Your task to perform on an android device: move a message to another label in the gmail app Image 0: 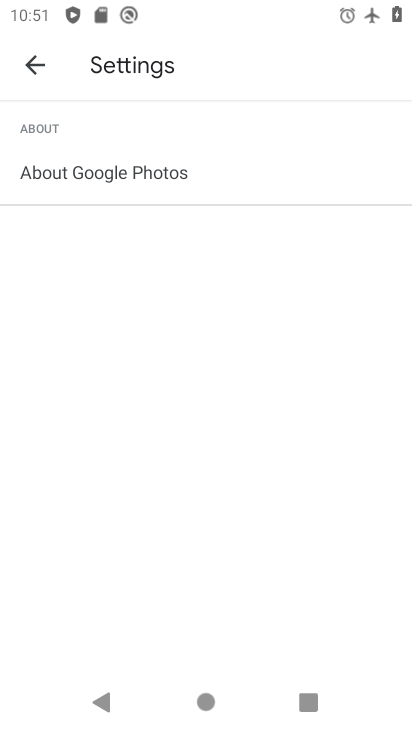
Step 0: press home button
Your task to perform on an android device: move a message to another label in the gmail app Image 1: 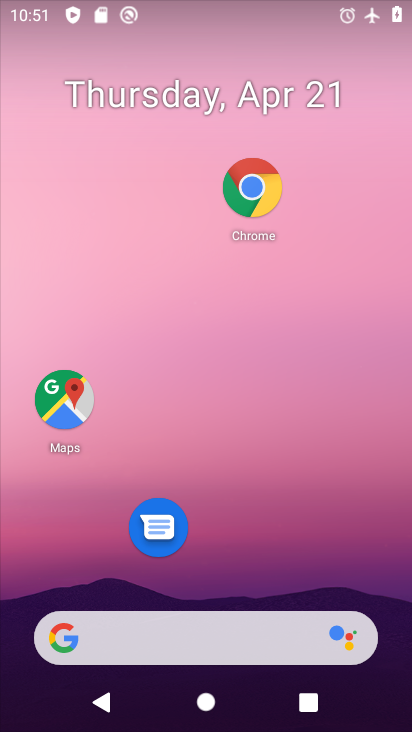
Step 1: drag from (320, 568) to (342, 429)
Your task to perform on an android device: move a message to another label in the gmail app Image 2: 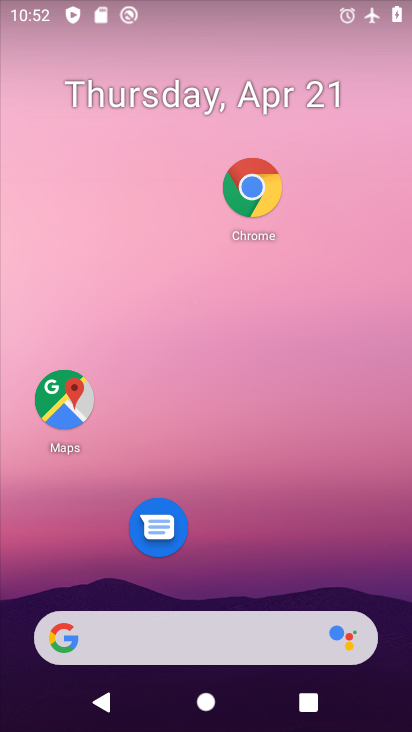
Step 2: drag from (240, 644) to (262, 274)
Your task to perform on an android device: move a message to another label in the gmail app Image 3: 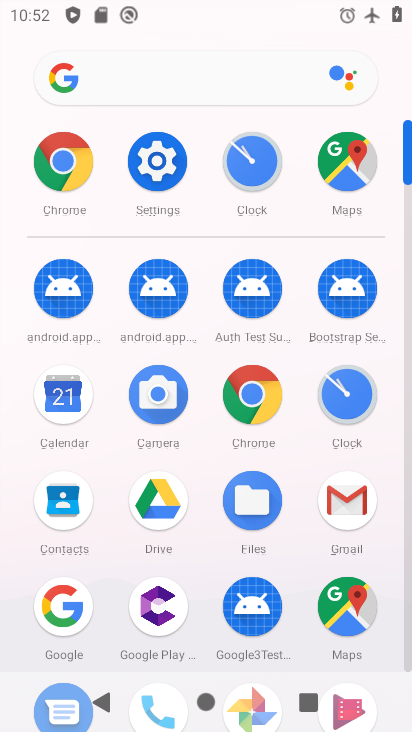
Step 3: click (334, 515)
Your task to perform on an android device: move a message to another label in the gmail app Image 4: 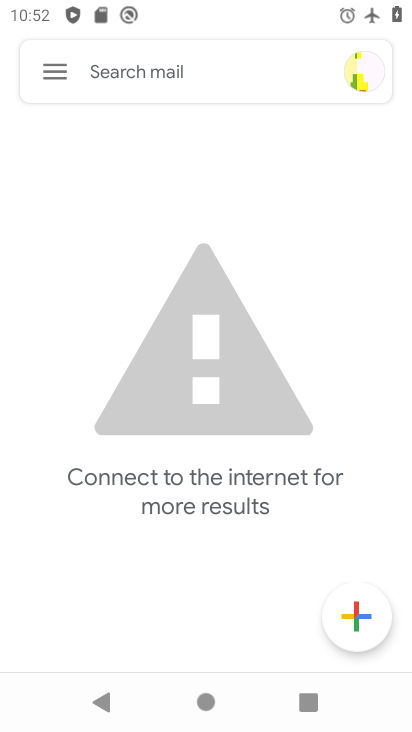
Step 4: click (59, 80)
Your task to perform on an android device: move a message to another label in the gmail app Image 5: 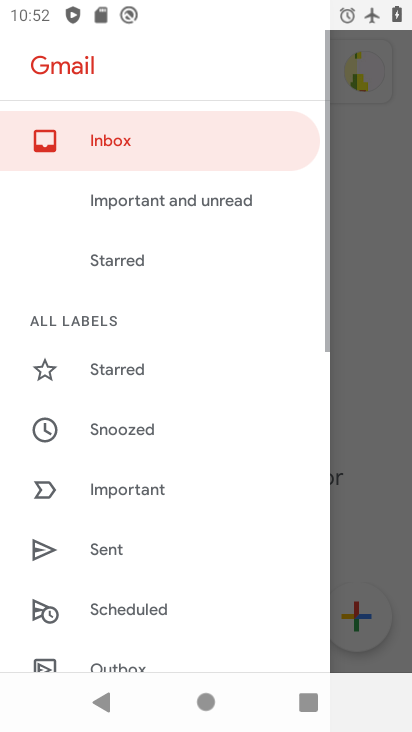
Step 5: drag from (183, 493) to (242, 171)
Your task to perform on an android device: move a message to another label in the gmail app Image 6: 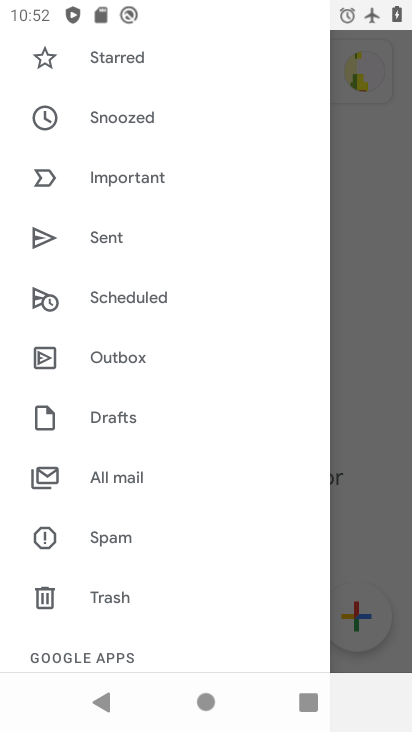
Step 6: click (183, 477)
Your task to perform on an android device: move a message to another label in the gmail app Image 7: 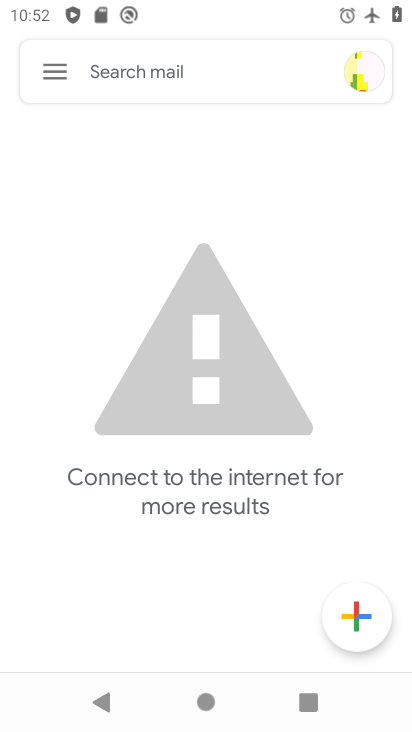
Step 7: task complete